Your task to perform on an android device: change your default location settings in chrome Image 0: 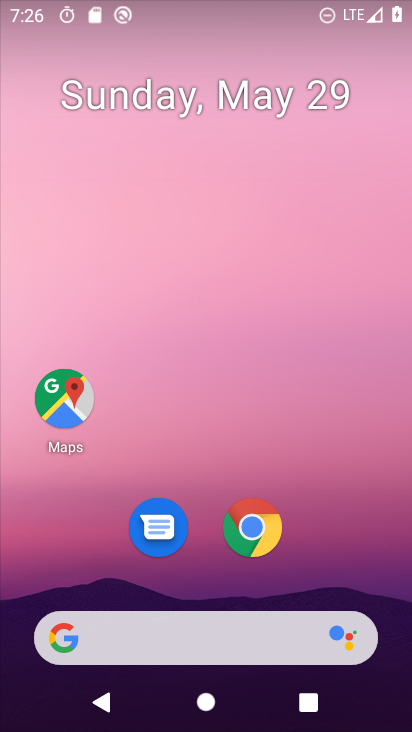
Step 0: drag from (380, 617) to (221, 12)
Your task to perform on an android device: change your default location settings in chrome Image 1: 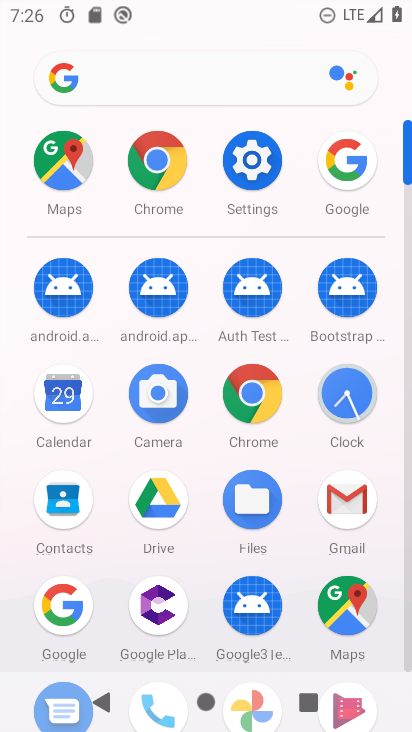
Step 1: click (155, 177)
Your task to perform on an android device: change your default location settings in chrome Image 2: 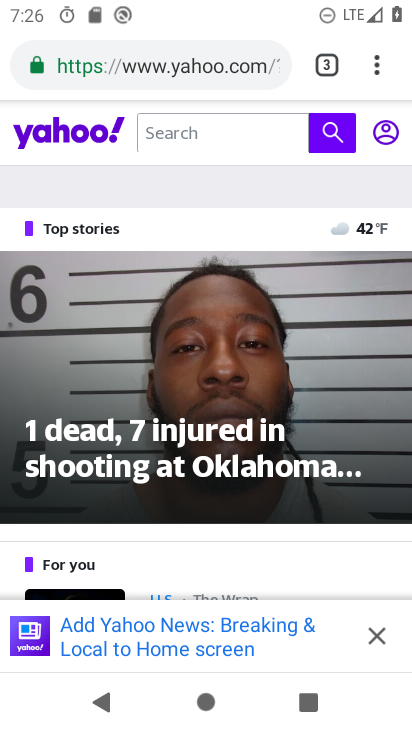
Step 2: press back button
Your task to perform on an android device: change your default location settings in chrome Image 3: 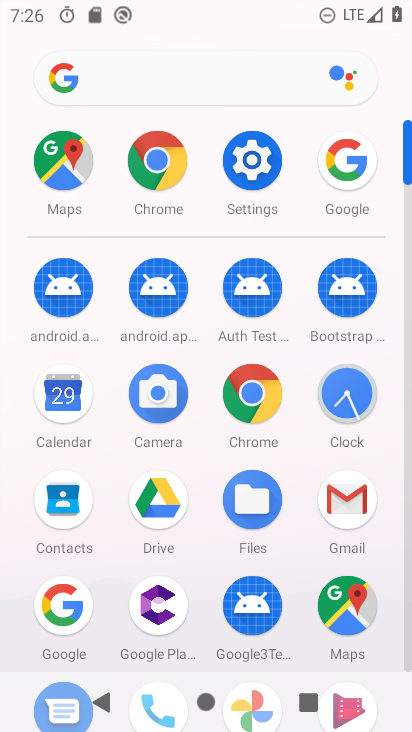
Step 3: click (148, 161)
Your task to perform on an android device: change your default location settings in chrome Image 4: 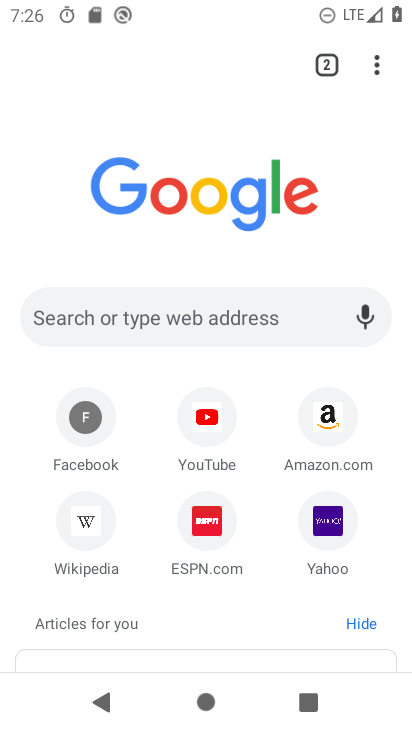
Step 4: click (381, 61)
Your task to perform on an android device: change your default location settings in chrome Image 5: 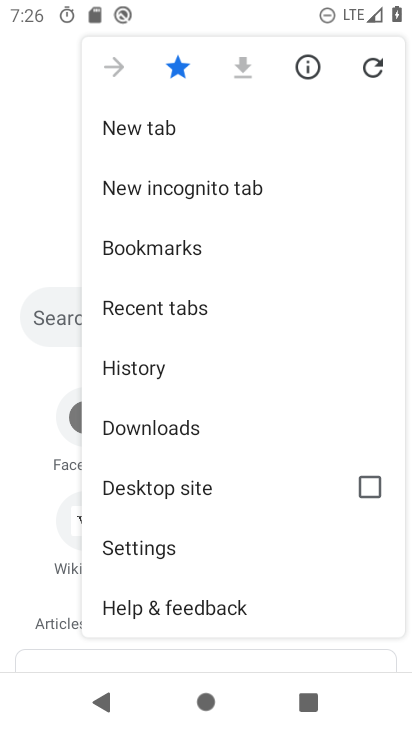
Step 5: click (149, 553)
Your task to perform on an android device: change your default location settings in chrome Image 6: 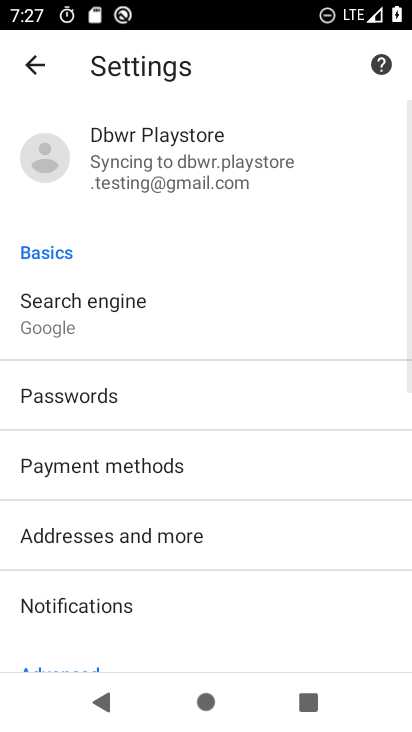
Step 6: click (103, 304)
Your task to perform on an android device: change your default location settings in chrome Image 7: 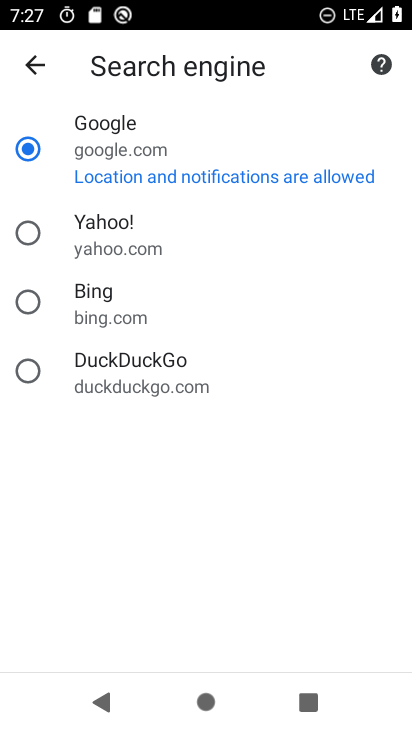
Step 7: click (75, 295)
Your task to perform on an android device: change your default location settings in chrome Image 8: 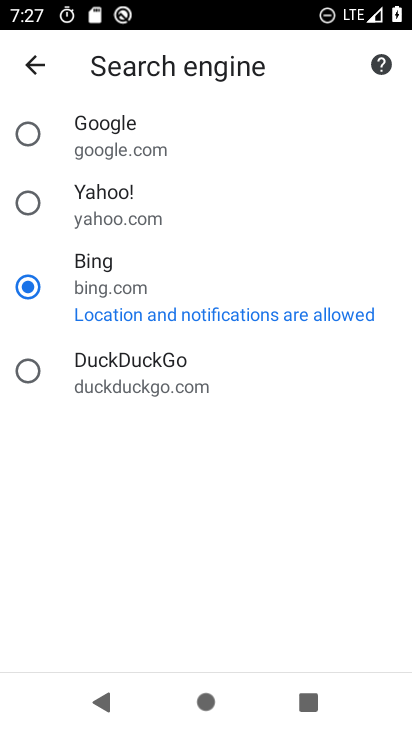
Step 8: task complete